Your task to perform on an android device: change the clock style Image 0: 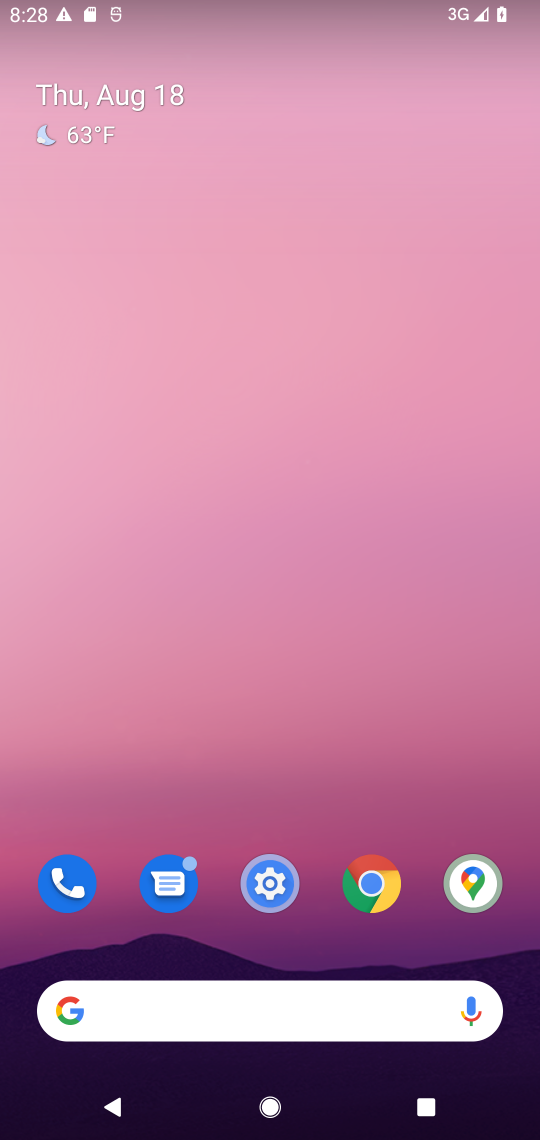
Step 0: drag from (116, 975) to (354, 385)
Your task to perform on an android device: change the clock style Image 1: 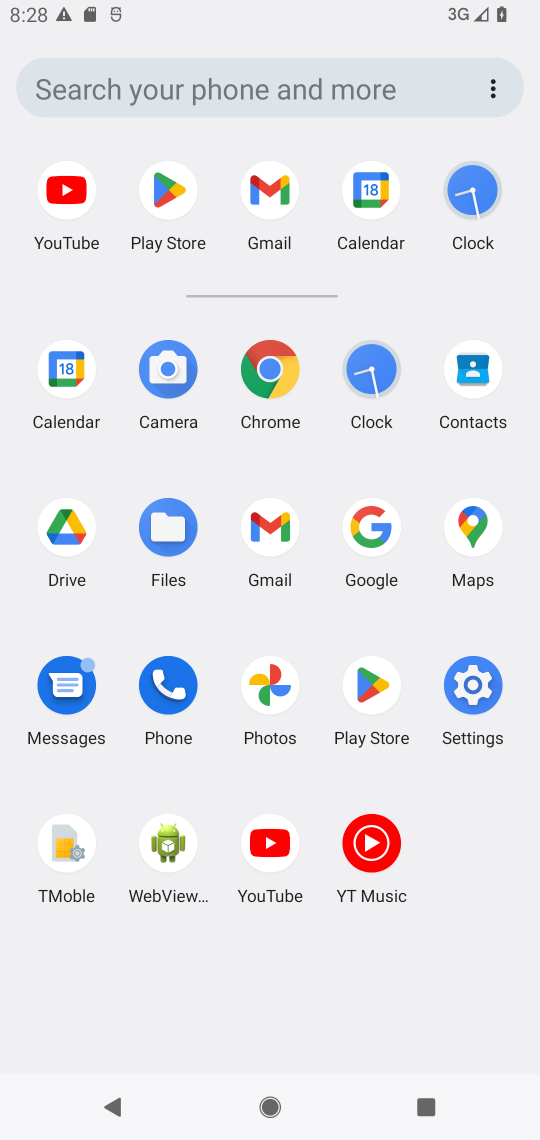
Step 1: click (459, 187)
Your task to perform on an android device: change the clock style Image 2: 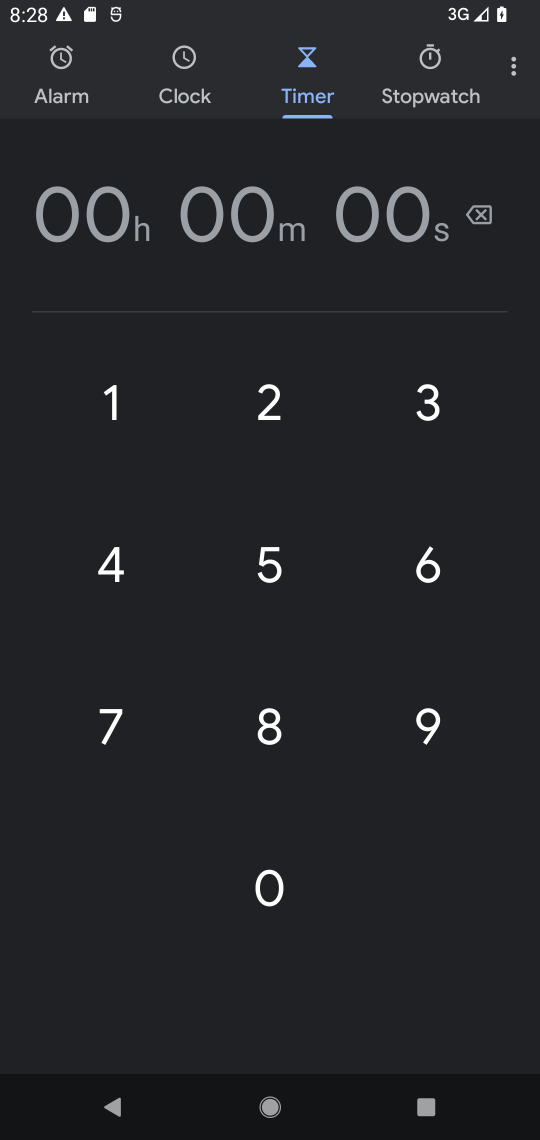
Step 2: click (177, 92)
Your task to perform on an android device: change the clock style Image 3: 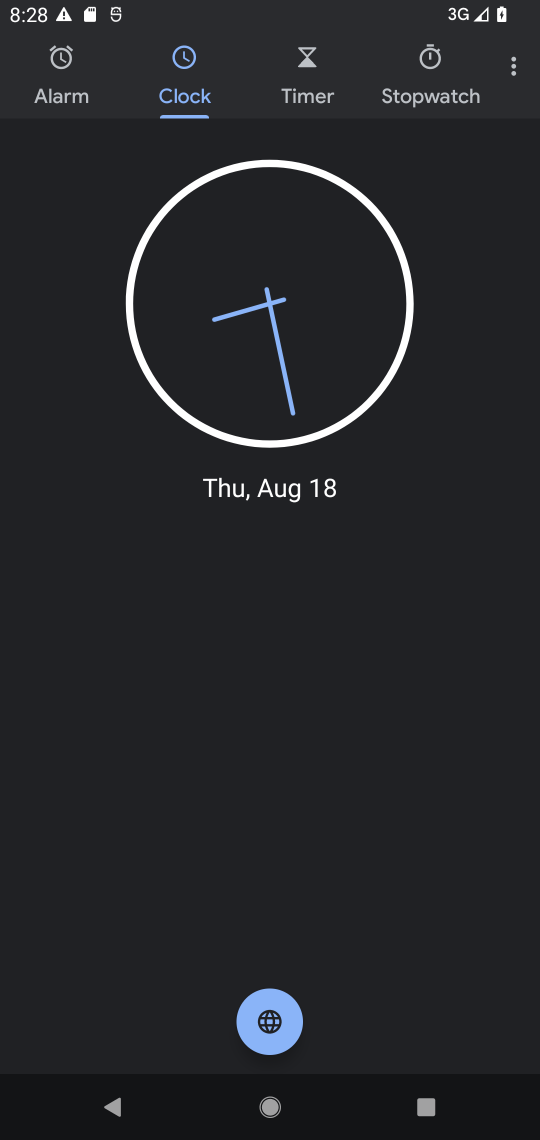
Step 3: click (514, 75)
Your task to perform on an android device: change the clock style Image 4: 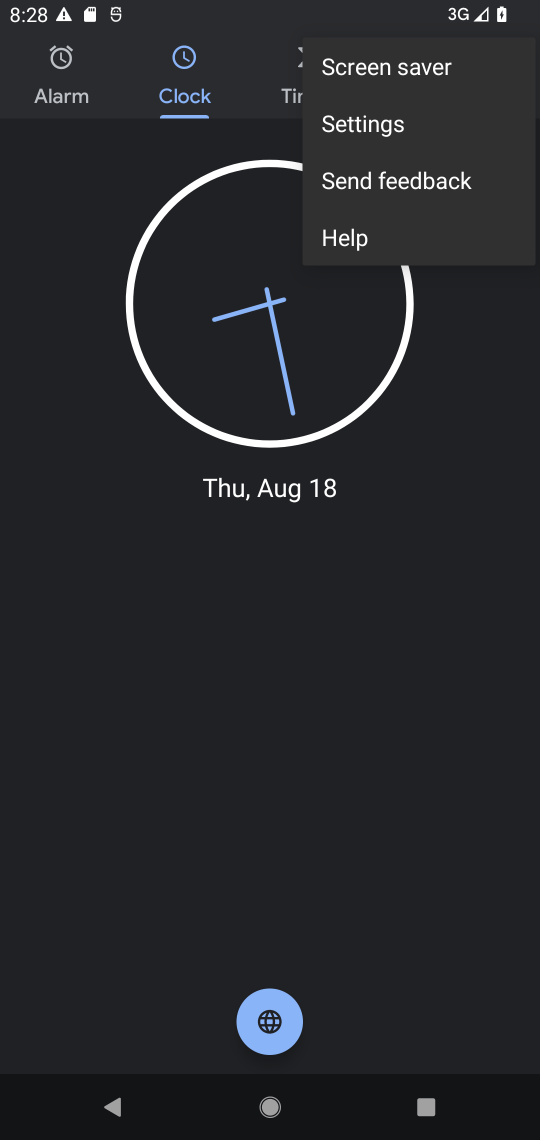
Step 4: click (332, 129)
Your task to perform on an android device: change the clock style Image 5: 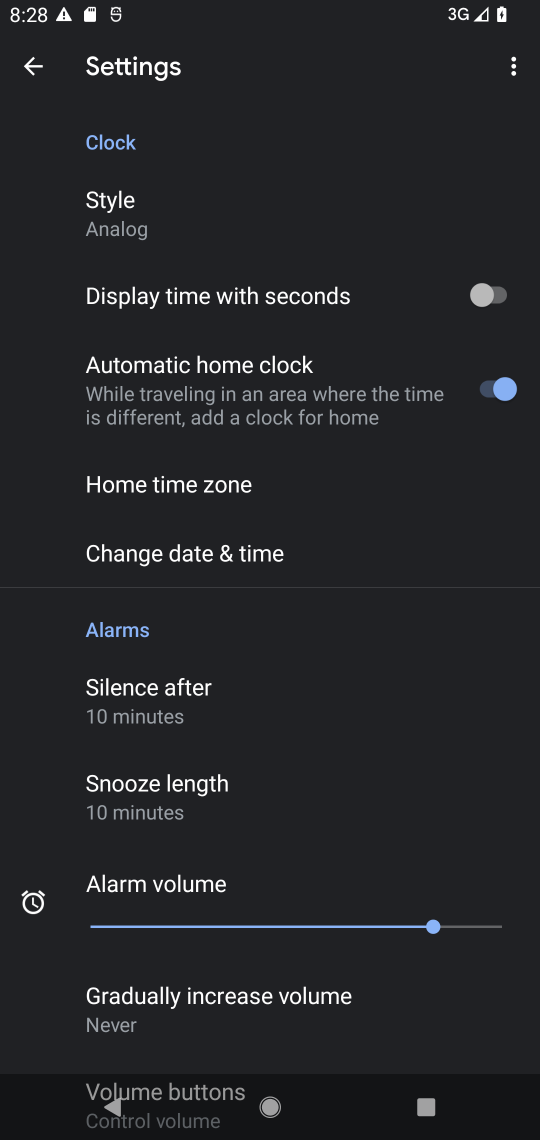
Step 5: click (165, 219)
Your task to perform on an android device: change the clock style Image 6: 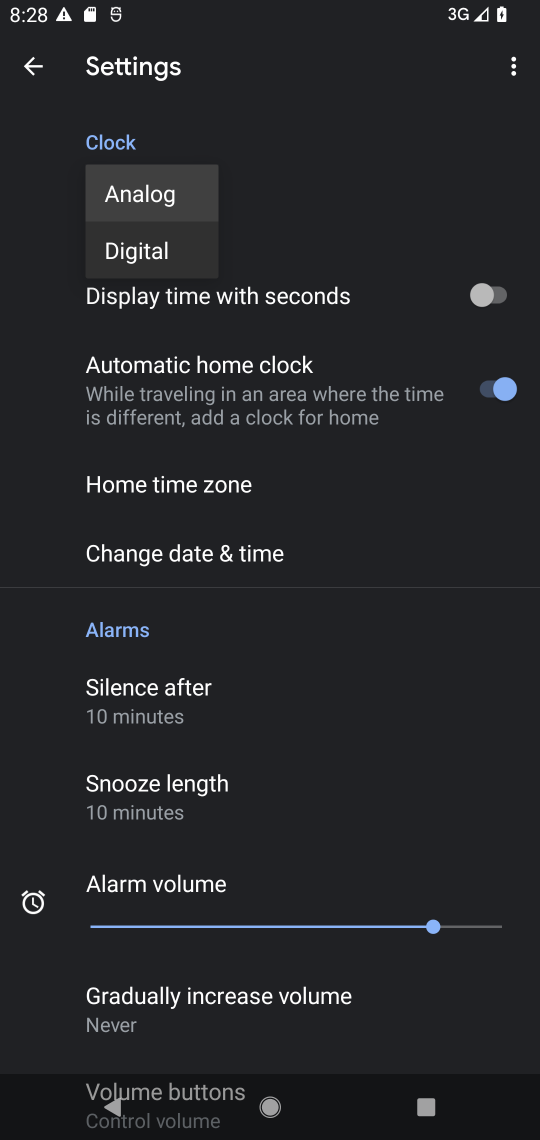
Step 6: click (146, 252)
Your task to perform on an android device: change the clock style Image 7: 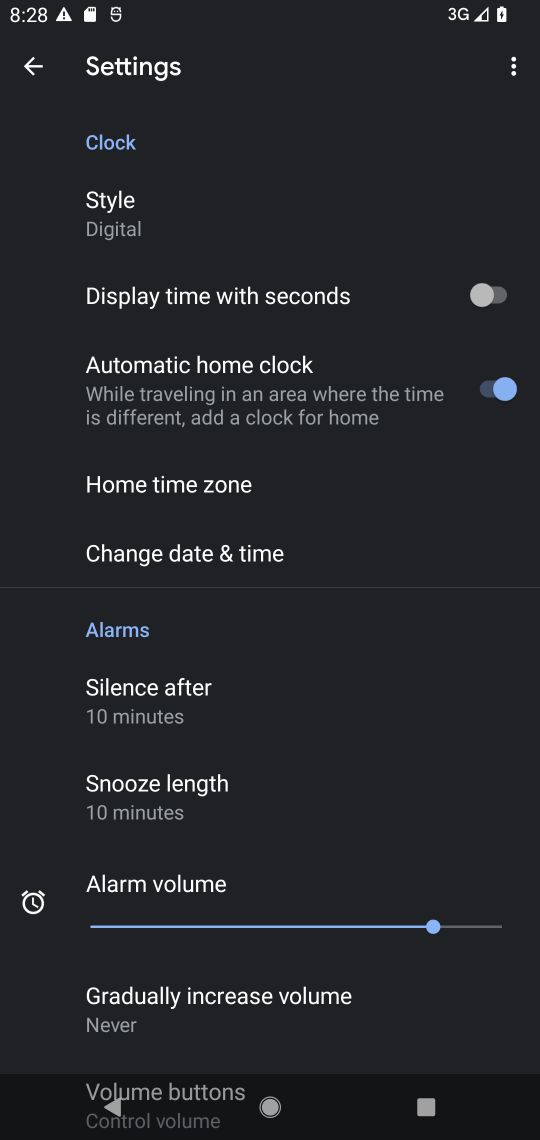
Step 7: task complete